Your task to perform on an android device: Open privacy settings Image 0: 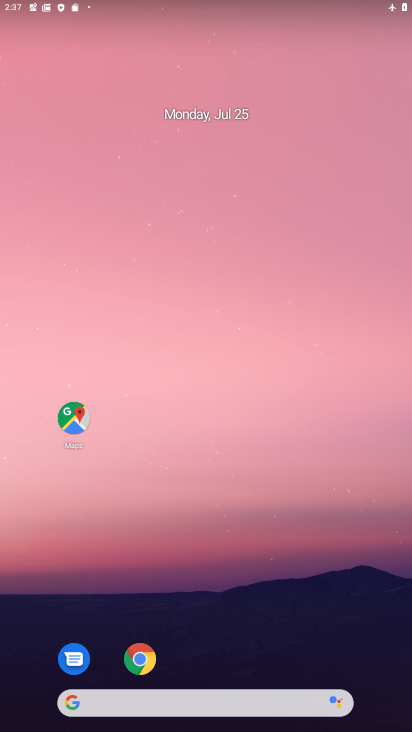
Step 0: drag from (175, 697) to (244, 94)
Your task to perform on an android device: Open privacy settings Image 1: 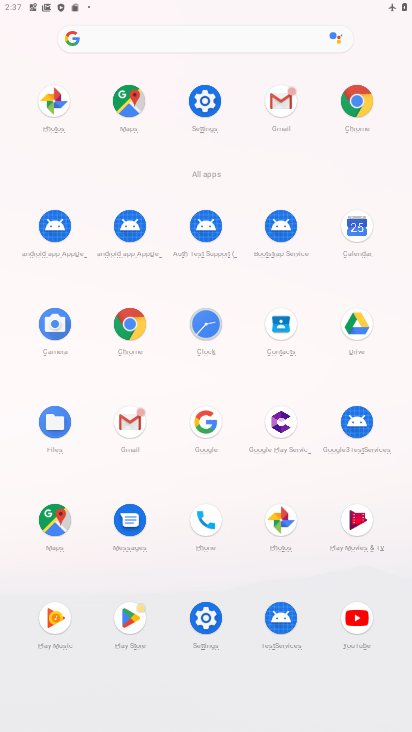
Step 1: click (209, 98)
Your task to perform on an android device: Open privacy settings Image 2: 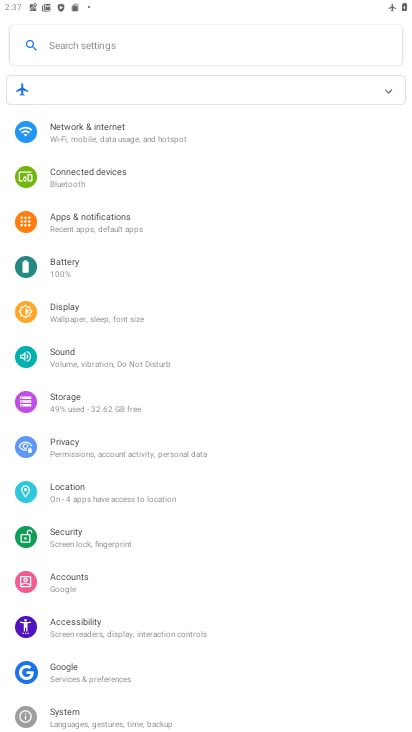
Step 2: click (71, 442)
Your task to perform on an android device: Open privacy settings Image 3: 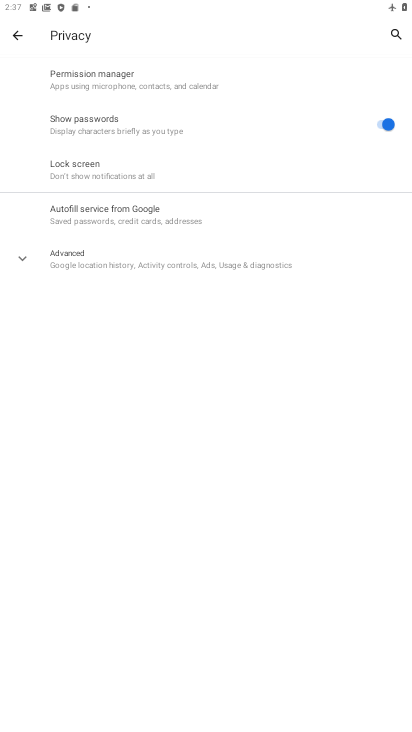
Step 3: click (64, 258)
Your task to perform on an android device: Open privacy settings Image 4: 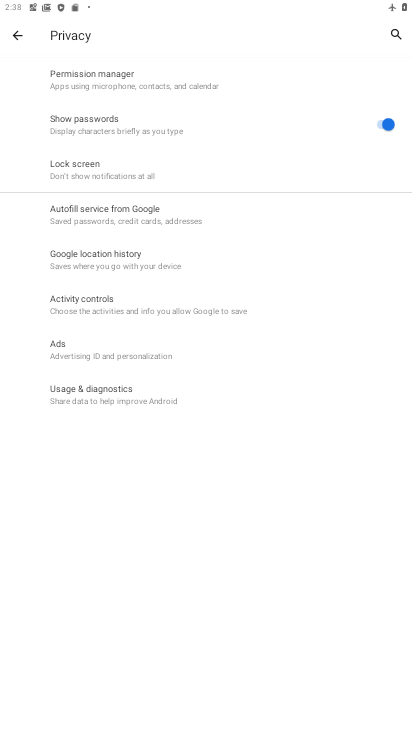
Step 4: task complete